Your task to perform on an android device: Show me the alarms in the clock app Image 0: 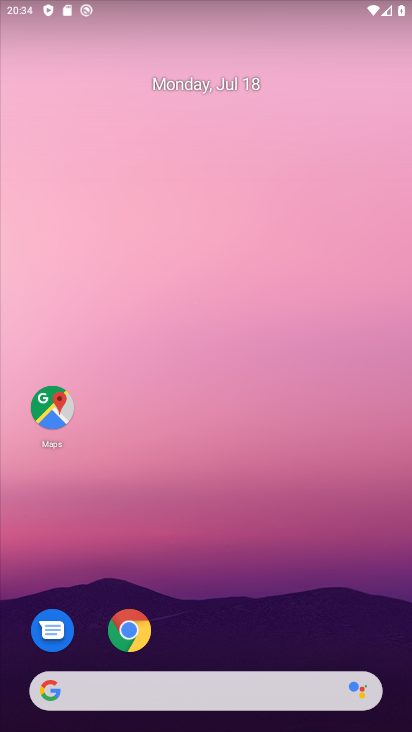
Step 0: drag from (202, 557) to (174, 213)
Your task to perform on an android device: Show me the alarms in the clock app Image 1: 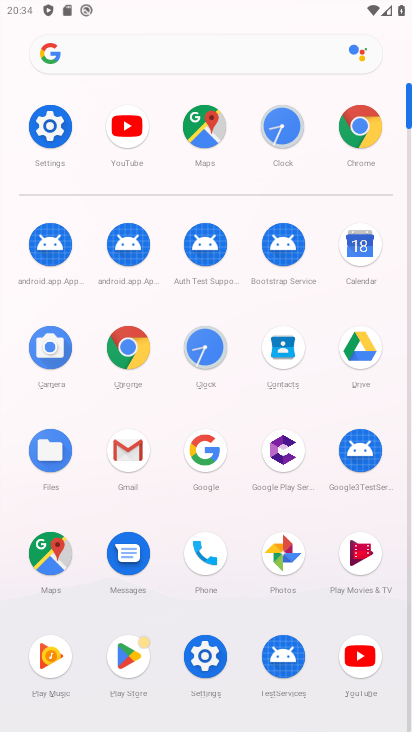
Step 1: click (207, 343)
Your task to perform on an android device: Show me the alarms in the clock app Image 2: 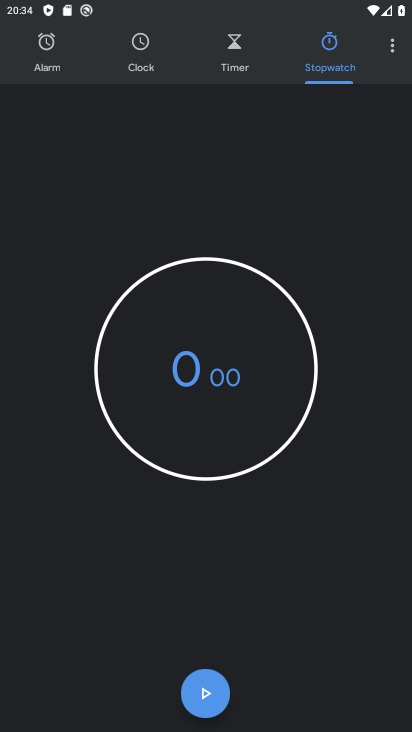
Step 2: click (44, 52)
Your task to perform on an android device: Show me the alarms in the clock app Image 3: 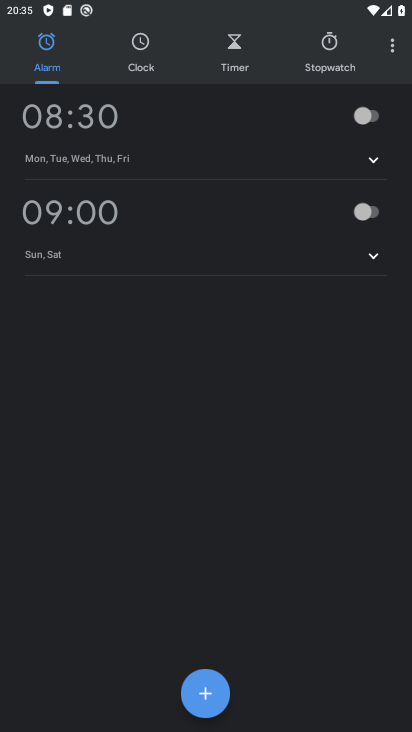
Step 3: task complete